Your task to perform on an android device: change keyboard looks Image 0: 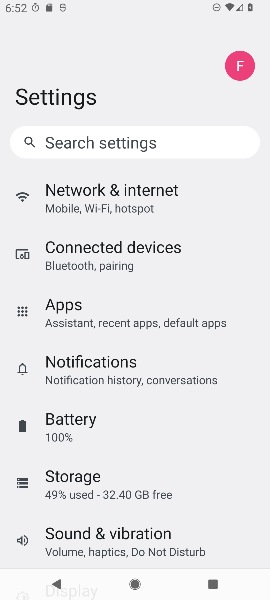
Step 0: press home button
Your task to perform on an android device: change keyboard looks Image 1: 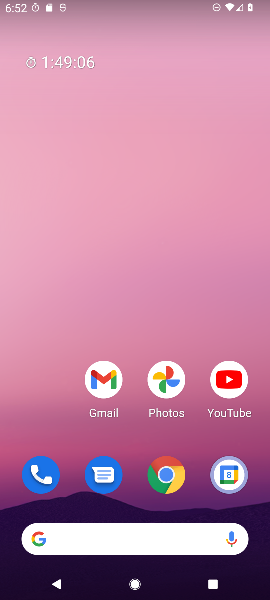
Step 1: drag from (59, 428) to (55, 215)
Your task to perform on an android device: change keyboard looks Image 2: 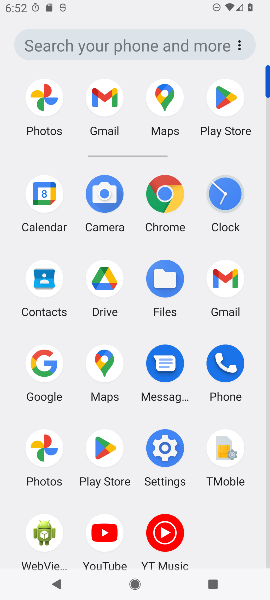
Step 2: click (171, 449)
Your task to perform on an android device: change keyboard looks Image 3: 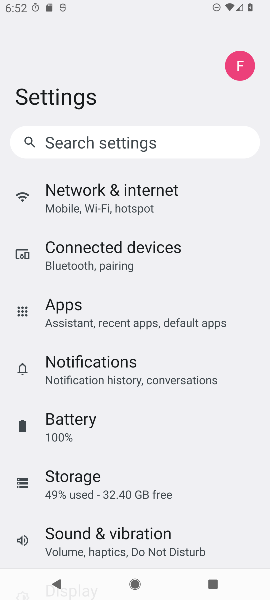
Step 3: drag from (228, 456) to (228, 359)
Your task to perform on an android device: change keyboard looks Image 4: 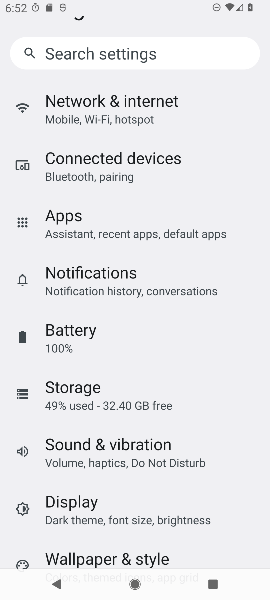
Step 4: drag from (225, 477) to (233, 353)
Your task to perform on an android device: change keyboard looks Image 5: 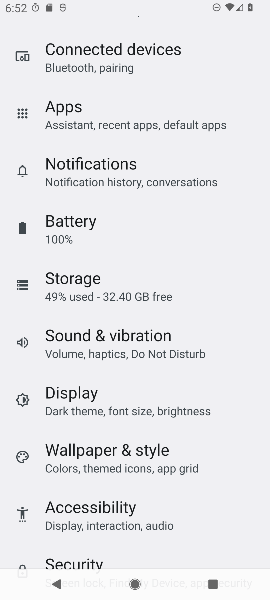
Step 5: drag from (230, 503) to (230, 379)
Your task to perform on an android device: change keyboard looks Image 6: 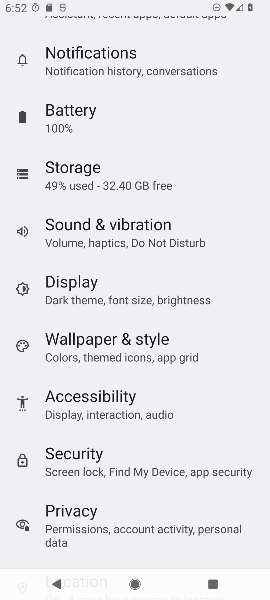
Step 6: drag from (217, 497) to (231, 368)
Your task to perform on an android device: change keyboard looks Image 7: 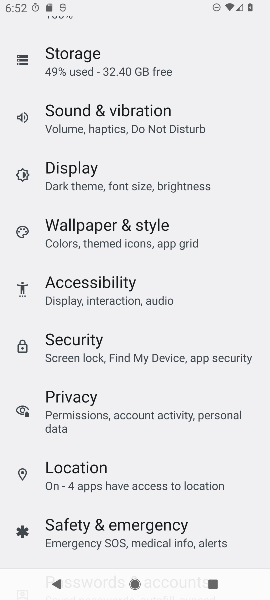
Step 7: drag from (236, 503) to (240, 389)
Your task to perform on an android device: change keyboard looks Image 8: 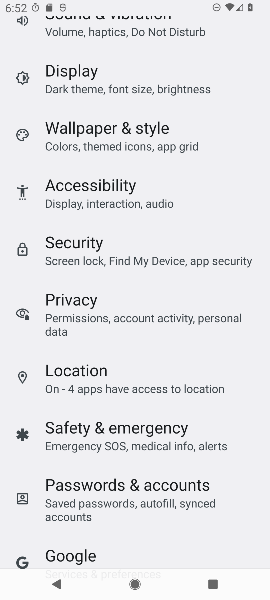
Step 8: drag from (240, 488) to (246, 384)
Your task to perform on an android device: change keyboard looks Image 9: 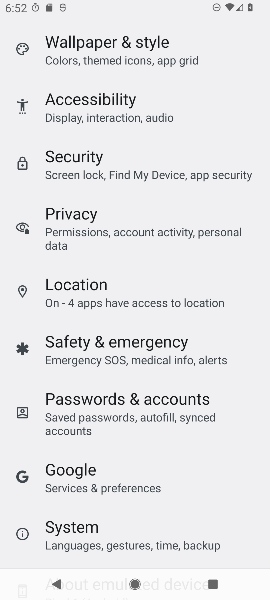
Step 9: drag from (242, 458) to (243, 368)
Your task to perform on an android device: change keyboard looks Image 10: 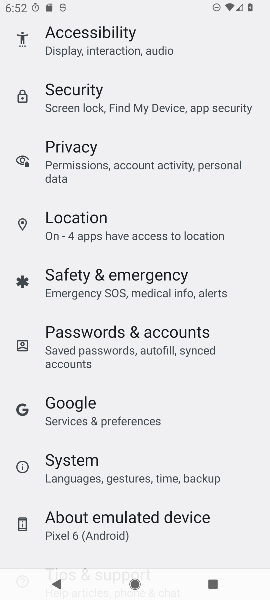
Step 10: drag from (224, 509) to (235, 376)
Your task to perform on an android device: change keyboard looks Image 11: 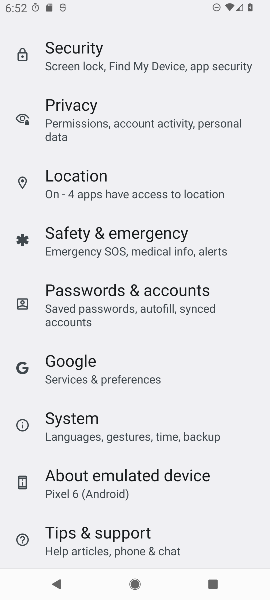
Step 11: click (175, 437)
Your task to perform on an android device: change keyboard looks Image 12: 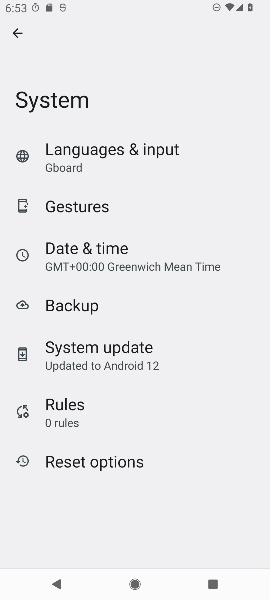
Step 12: click (106, 157)
Your task to perform on an android device: change keyboard looks Image 13: 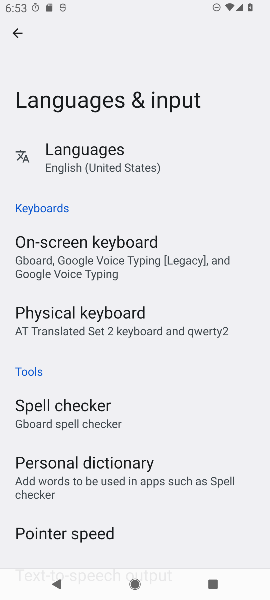
Step 13: click (75, 249)
Your task to perform on an android device: change keyboard looks Image 14: 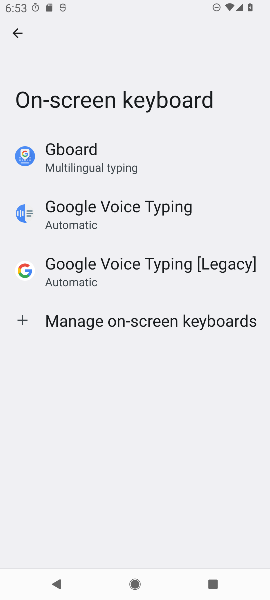
Step 14: click (97, 166)
Your task to perform on an android device: change keyboard looks Image 15: 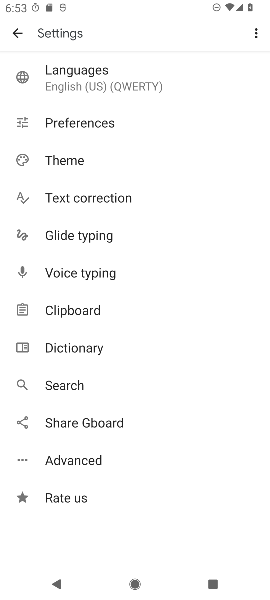
Step 15: click (71, 158)
Your task to perform on an android device: change keyboard looks Image 16: 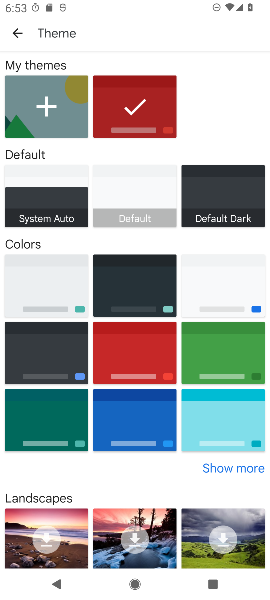
Step 16: click (53, 294)
Your task to perform on an android device: change keyboard looks Image 17: 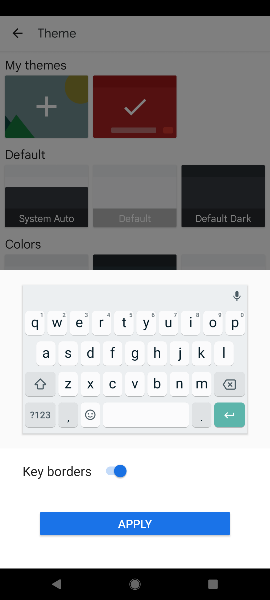
Step 17: click (141, 523)
Your task to perform on an android device: change keyboard looks Image 18: 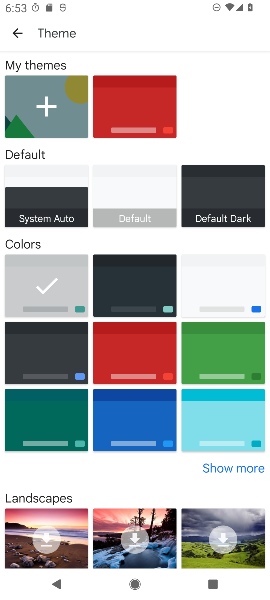
Step 18: task complete